Your task to perform on an android device: Open Wikipedia Image 0: 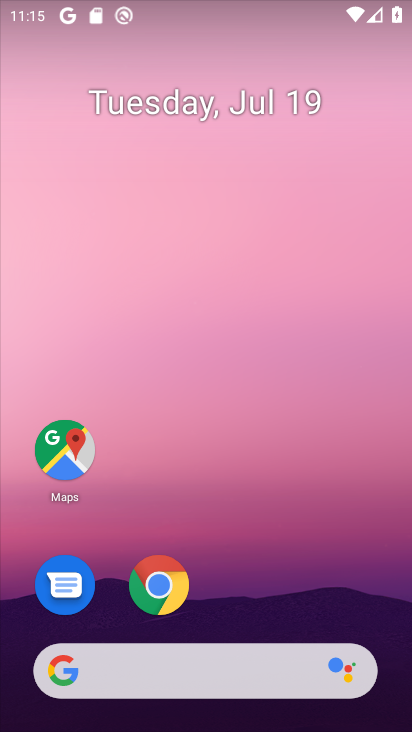
Step 0: click (169, 583)
Your task to perform on an android device: Open Wikipedia Image 1: 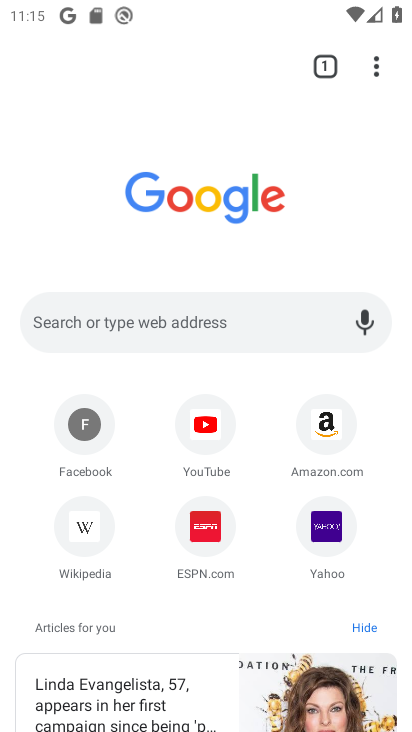
Step 1: click (84, 536)
Your task to perform on an android device: Open Wikipedia Image 2: 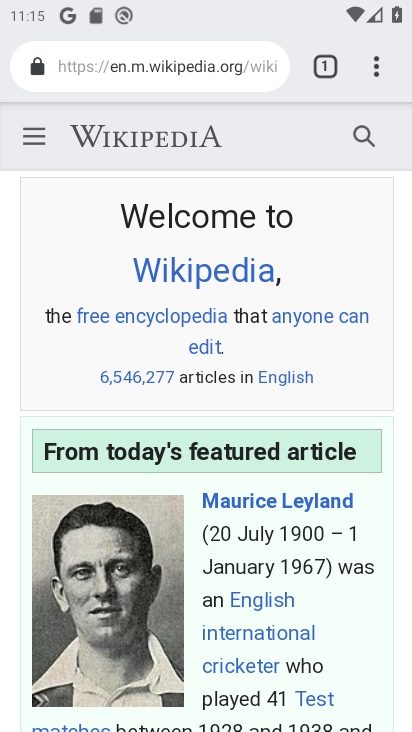
Step 2: task complete